Your task to perform on an android device: Open the stopwatch Image 0: 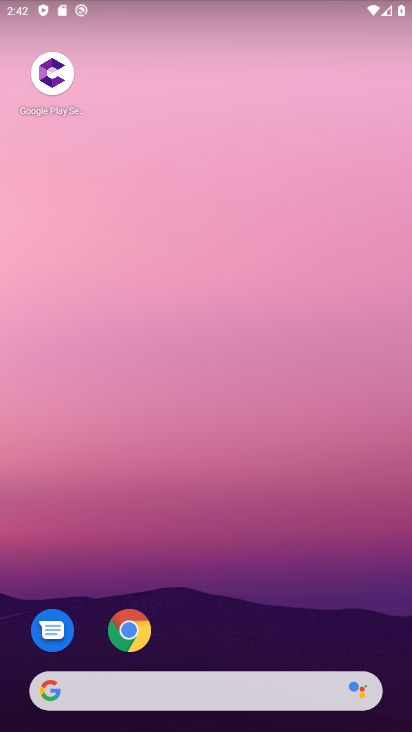
Step 0: drag from (341, 629) to (290, 88)
Your task to perform on an android device: Open the stopwatch Image 1: 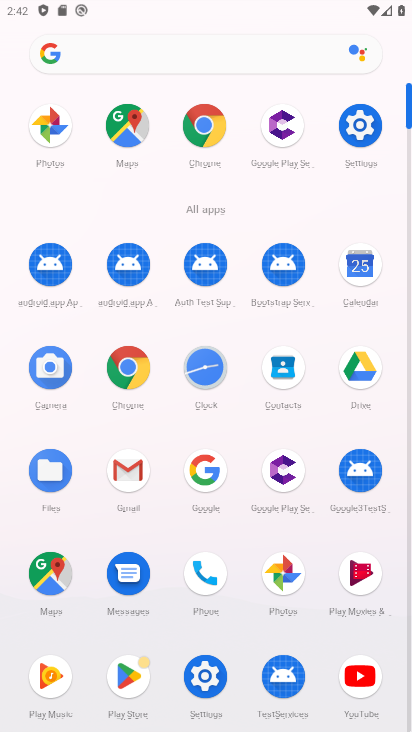
Step 1: click (212, 372)
Your task to perform on an android device: Open the stopwatch Image 2: 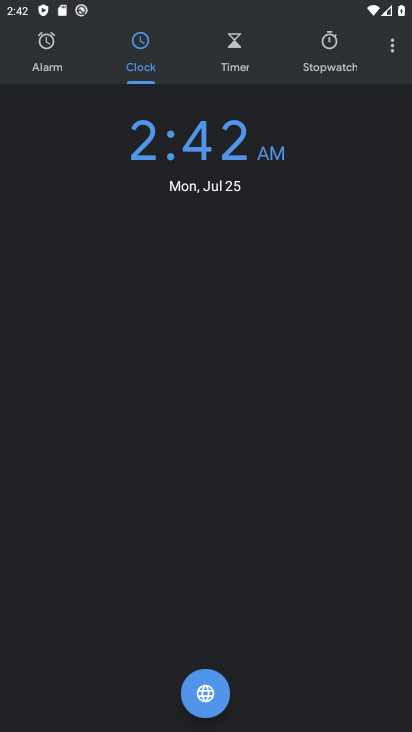
Step 2: click (354, 55)
Your task to perform on an android device: Open the stopwatch Image 3: 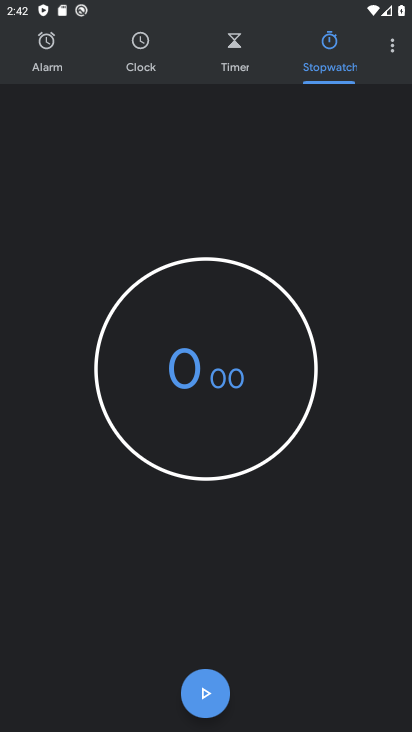
Step 3: task complete